Your task to perform on an android device: Go to Maps Image 0: 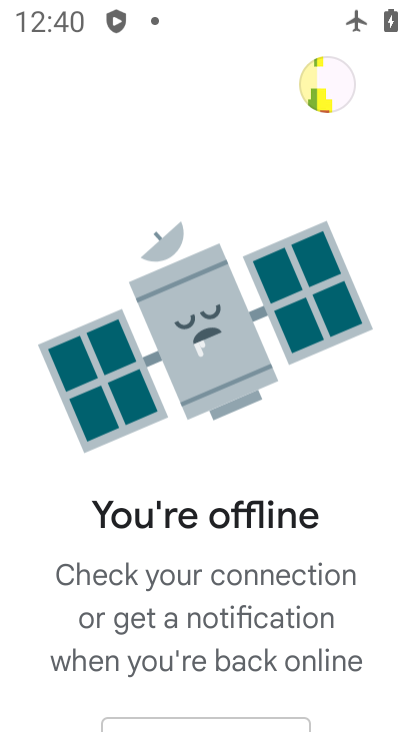
Step 0: press home button
Your task to perform on an android device: Go to Maps Image 1: 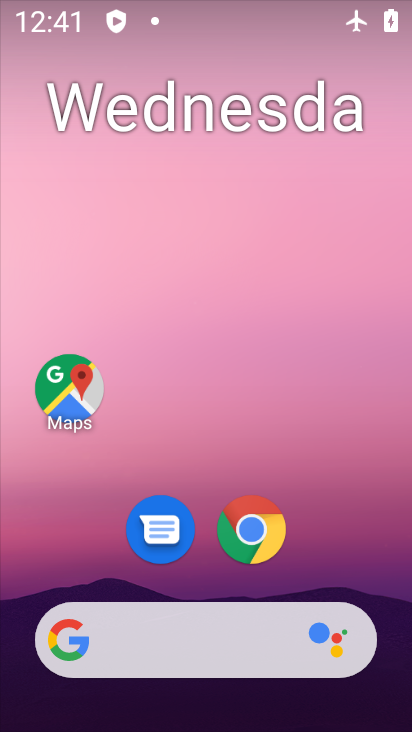
Step 1: drag from (209, 707) to (202, 133)
Your task to perform on an android device: Go to Maps Image 2: 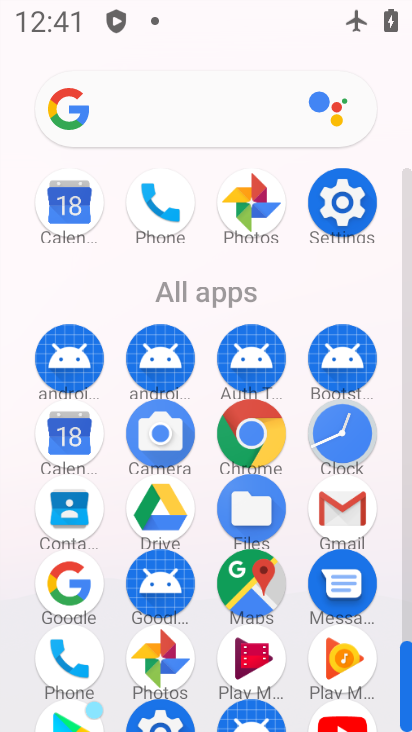
Step 2: click (240, 574)
Your task to perform on an android device: Go to Maps Image 3: 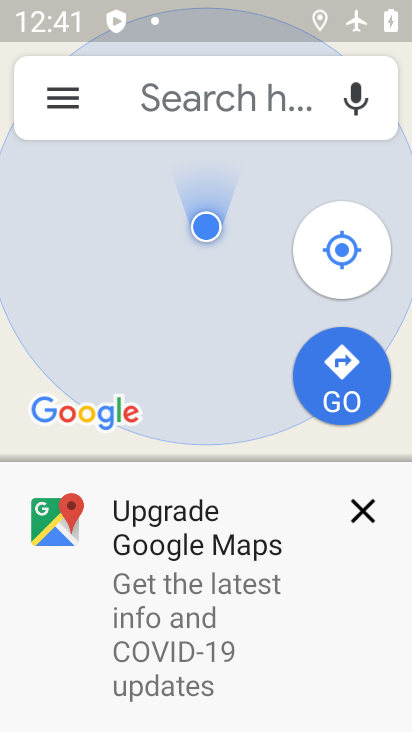
Step 3: task complete